Your task to perform on an android device: turn on data saver in the chrome app Image 0: 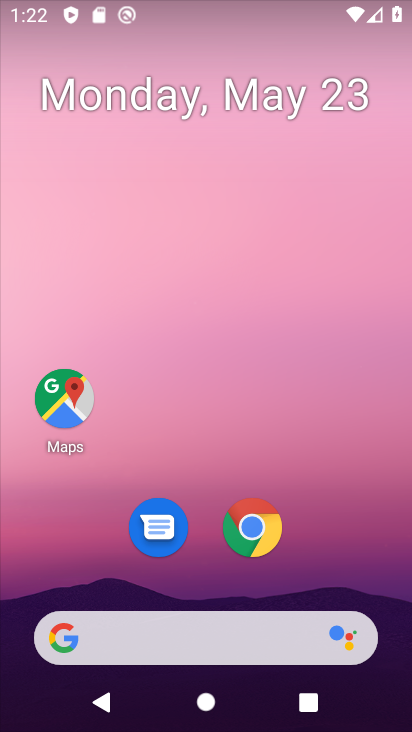
Step 0: click (257, 85)
Your task to perform on an android device: turn on data saver in the chrome app Image 1: 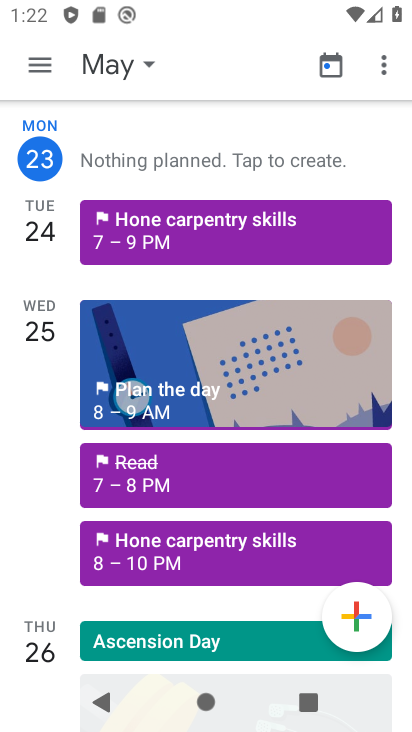
Step 1: press back button
Your task to perform on an android device: turn on data saver in the chrome app Image 2: 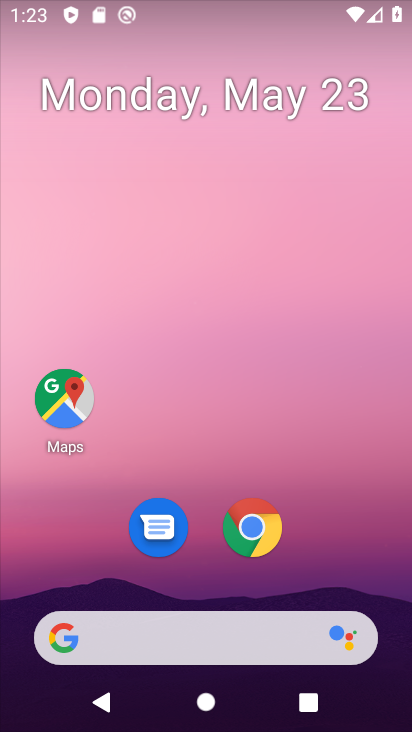
Step 2: click (253, 521)
Your task to perform on an android device: turn on data saver in the chrome app Image 3: 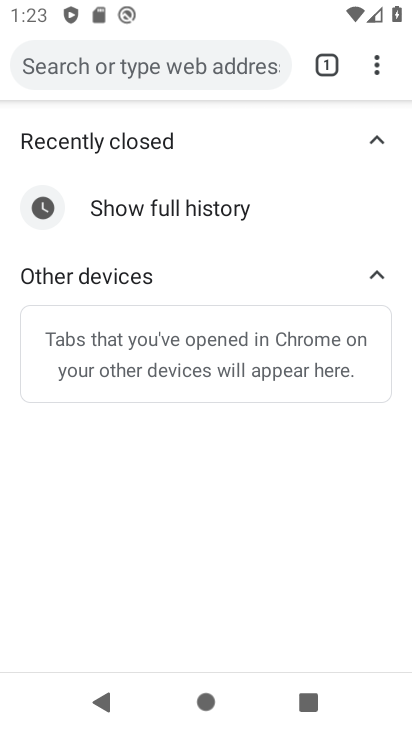
Step 3: drag from (368, 62) to (154, 551)
Your task to perform on an android device: turn on data saver in the chrome app Image 4: 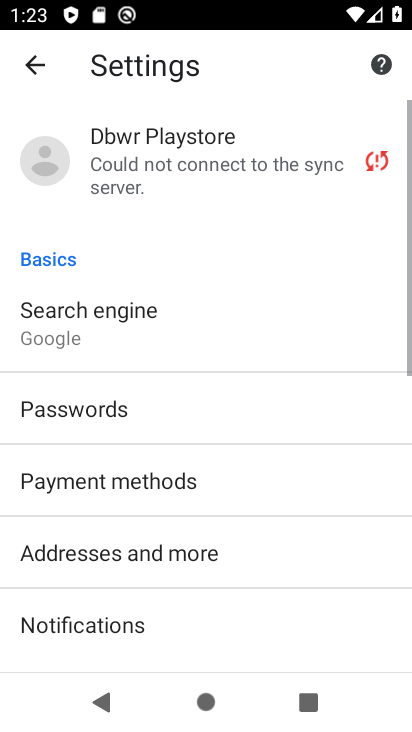
Step 4: drag from (172, 580) to (246, 118)
Your task to perform on an android device: turn on data saver in the chrome app Image 5: 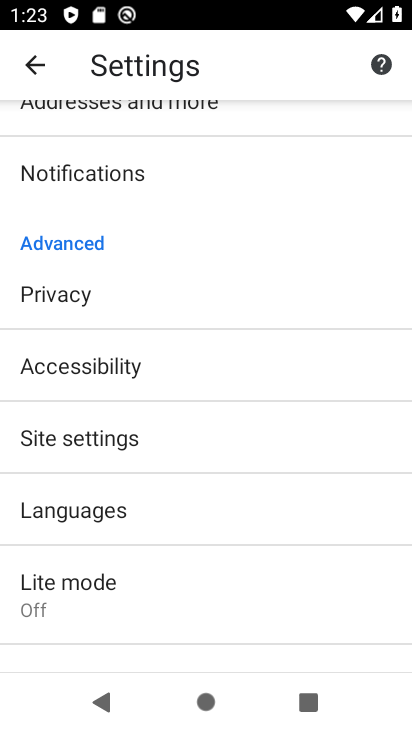
Step 5: click (90, 588)
Your task to perform on an android device: turn on data saver in the chrome app Image 6: 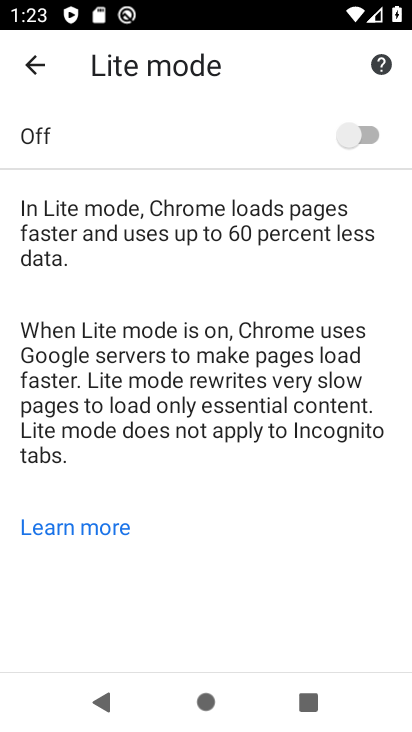
Step 6: click (360, 139)
Your task to perform on an android device: turn on data saver in the chrome app Image 7: 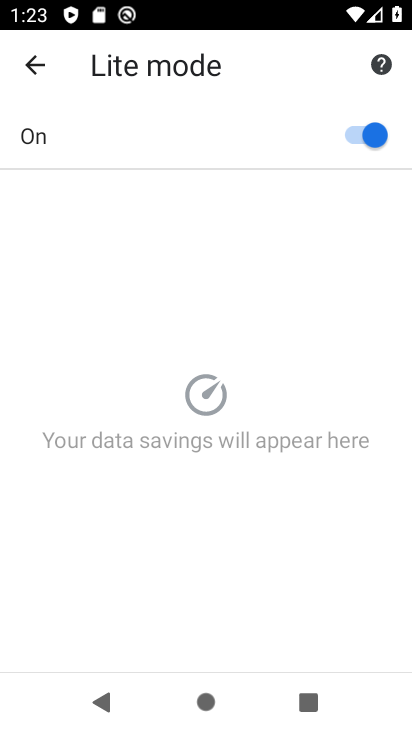
Step 7: task complete